Your task to perform on an android device: Open accessibility settings Image 0: 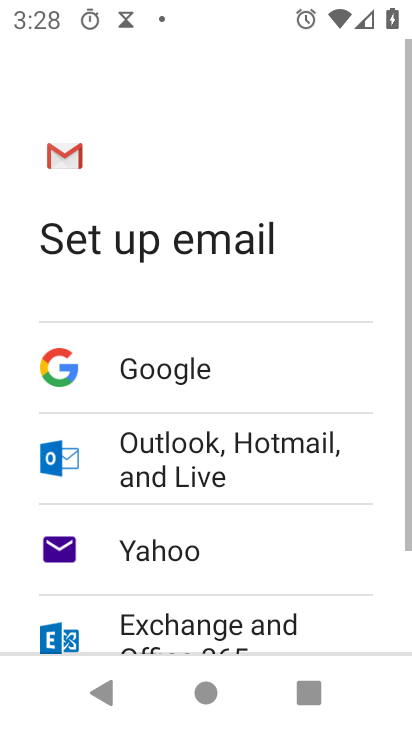
Step 0: press home button
Your task to perform on an android device: Open accessibility settings Image 1: 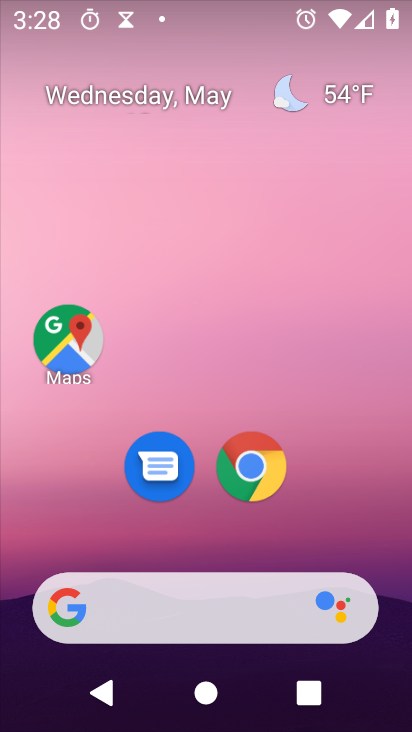
Step 1: drag from (365, 509) to (353, 47)
Your task to perform on an android device: Open accessibility settings Image 2: 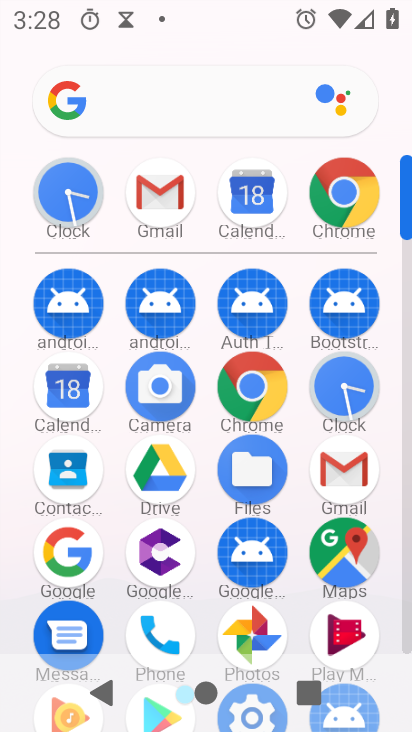
Step 2: click (404, 630)
Your task to perform on an android device: Open accessibility settings Image 3: 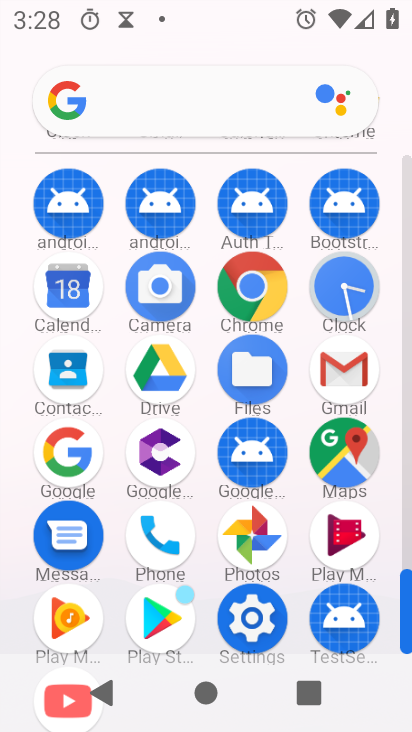
Step 3: click (264, 598)
Your task to perform on an android device: Open accessibility settings Image 4: 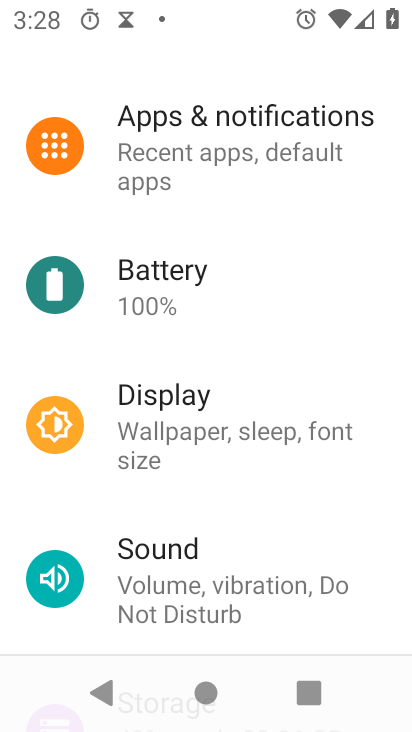
Step 4: drag from (274, 598) to (295, 209)
Your task to perform on an android device: Open accessibility settings Image 5: 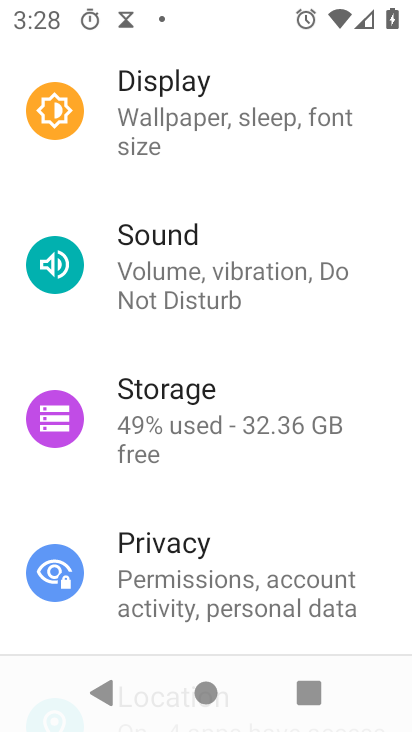
Step 5: drag from (299, 526) to (329, 133)
Your task to perform on an android device: Open accessibility settings Image 6: 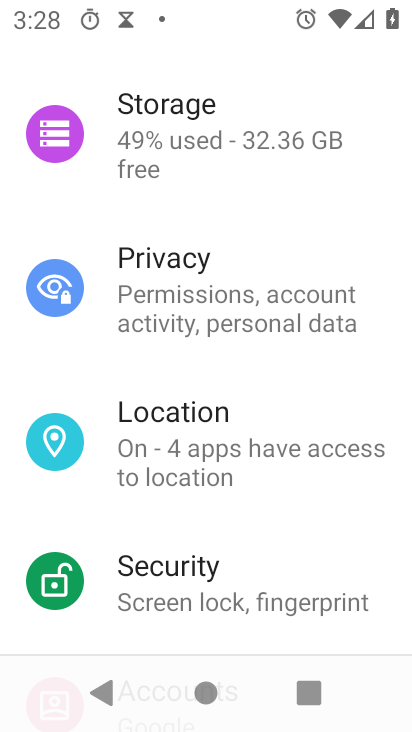
Step 6: drag from (297, 462) to (284, 100)
Your task to perform on an android device: Open accessibility settings Image 7: 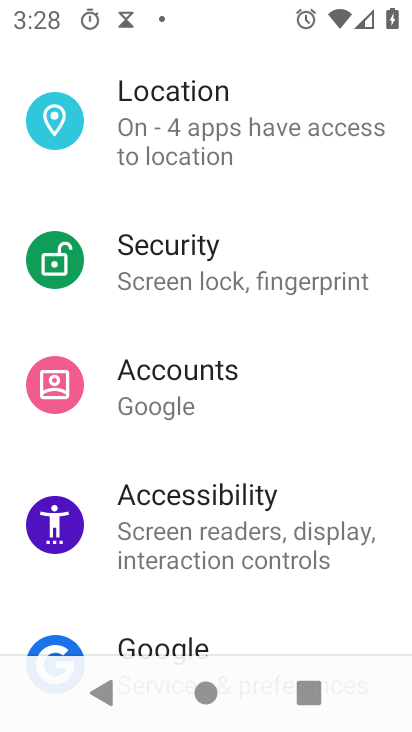
Step 7: click (255, 534)
Your task to perform on an android device: Open accessibility settings Image 8: 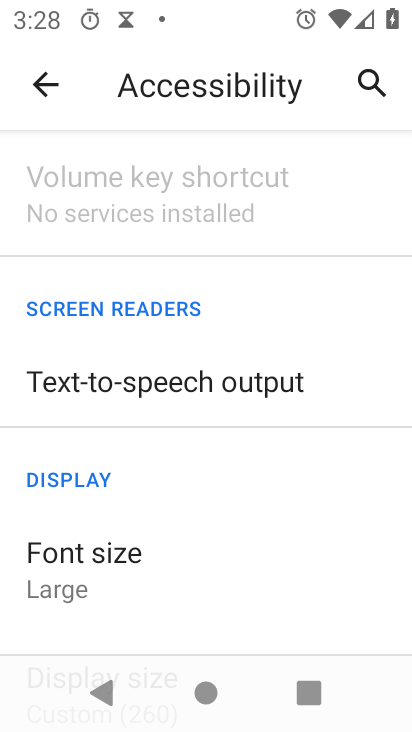
Step 8: task complete